Your task to perform on an android device: Open Google Chrome and open the bookmarks view Image 0: 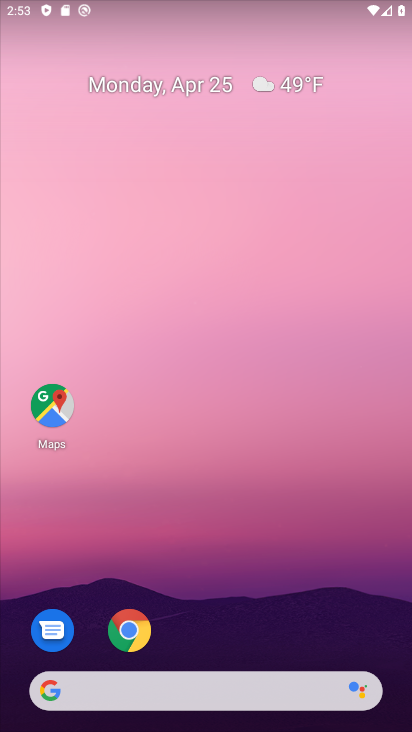
Step 0: click (133, 637)
Your task to perform on an android device: Open Google Chrome and open the bookmarks view Image 1: 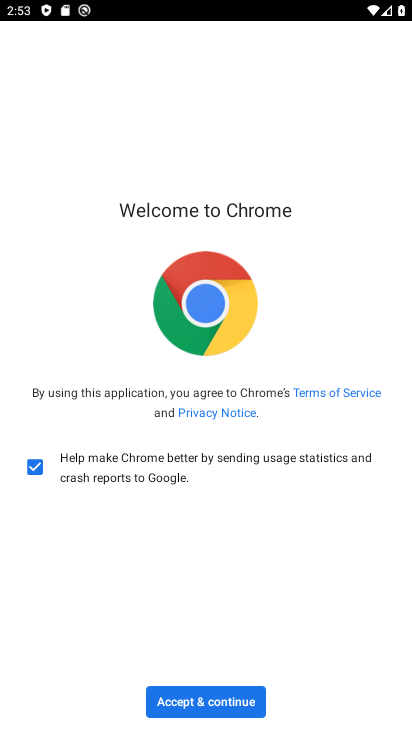
Step 1: click (245, 703)
Your task to perform on an android device: Open Google Chrome and open the bookmarks view Image 2: 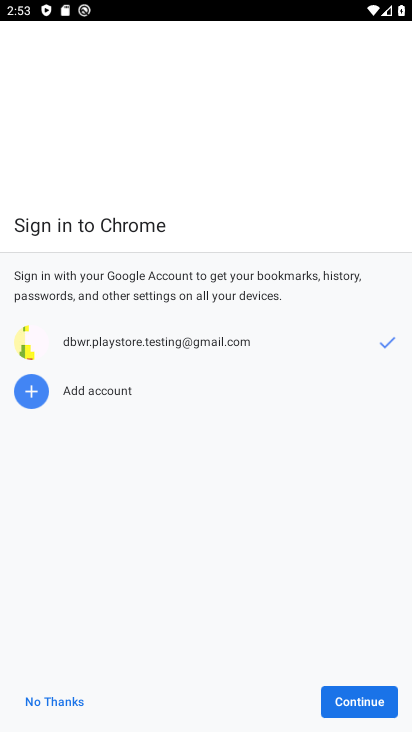
Step 2: click (348, 692)
Your task to perform on an android device: Open Google Chrome and open the bookmarks view Image 3: 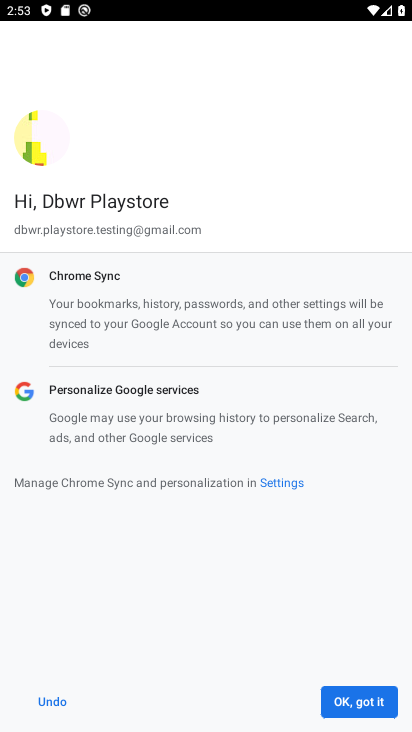
Step 3: click (349, 699)
Your task to perform on an android device: Open Google Chrome and open the bookmarks view Image 4: 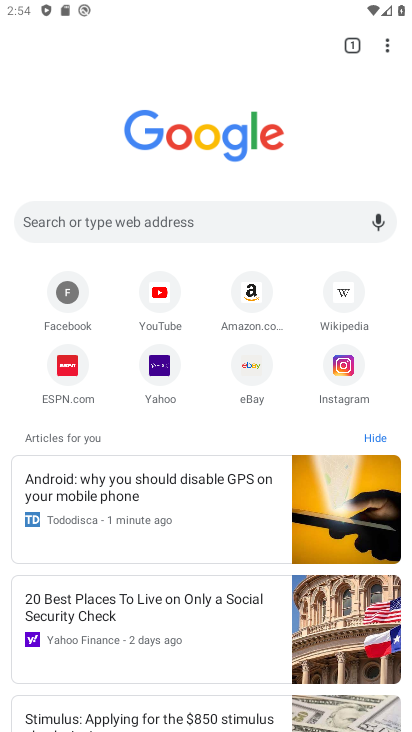
Step 4: click (385, 43)
Your task to perform on an android device: Open Google Chrome and open the bookmarks view Image 5: 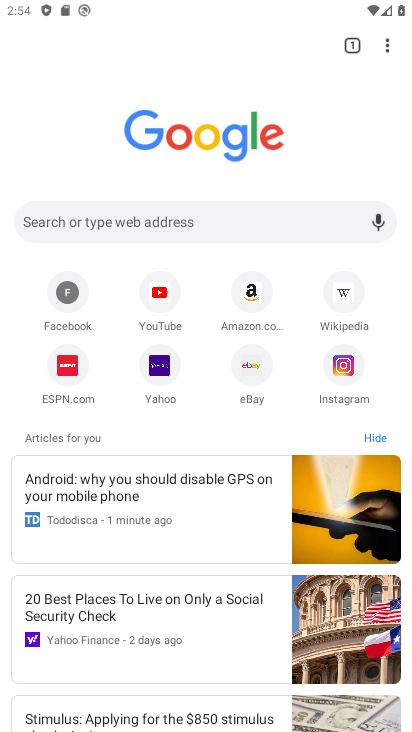
Step 5: click (385, 45)
Your task to perform on an android device: Open Google Chrome and open the bookmarks view Image 6: 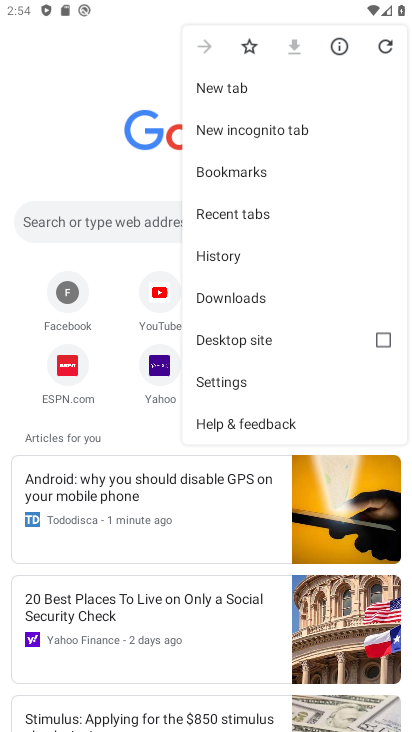
Step 6: click (262, 164)
Your task to perform on an android device: Open Google Chrome and open the bookmarks view Image 7: 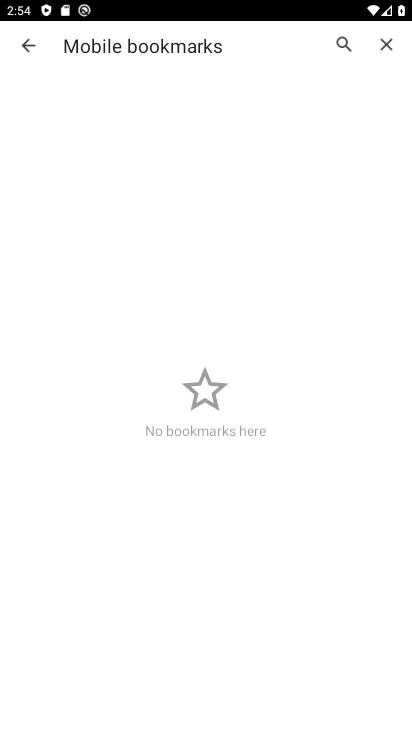
Step 7: task complete